Your task to perform on an android device: What is the recent news? Image 0: 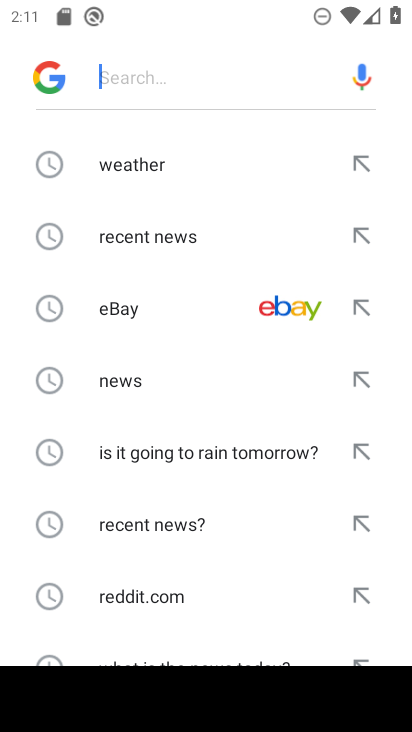
Step 0: press home button
Your task to perform on an android device: What is the recent news? Image 1: 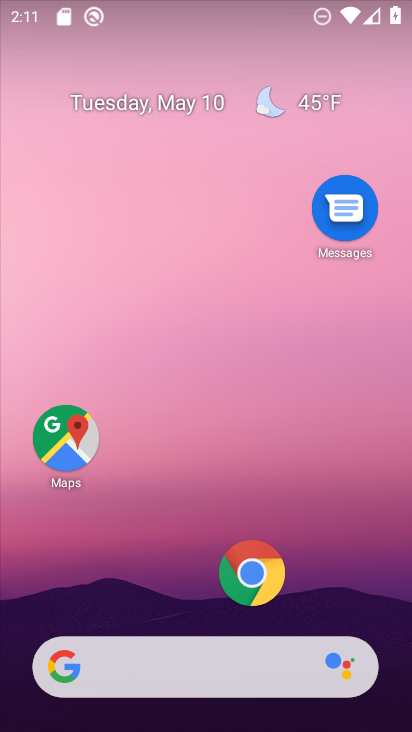
Step 1: drag from (203, 611) to (314, 91)
Your task to perform on an android device: What is the recent news? Image 2: 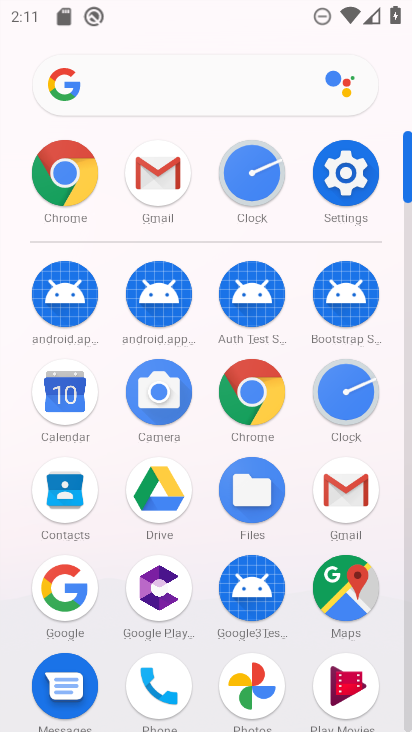
Step 2: drag from (204, 664) to (221, 260)
Your task to perform on an android device: What is the recent news? Image 3: 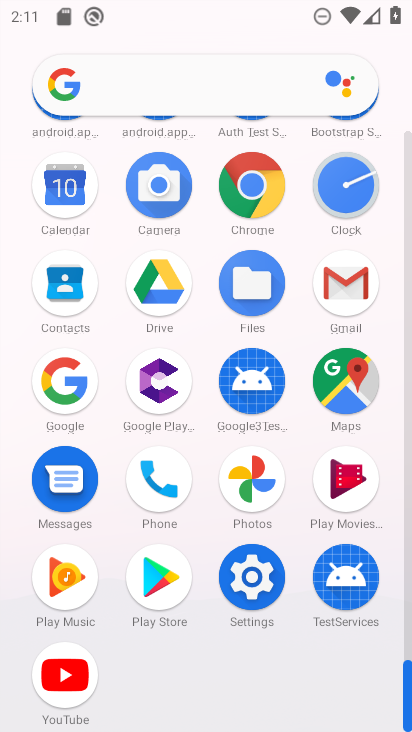
Step 3: click (249, 86)
Your task to perform on an android device: What is the recent news? Image 4: 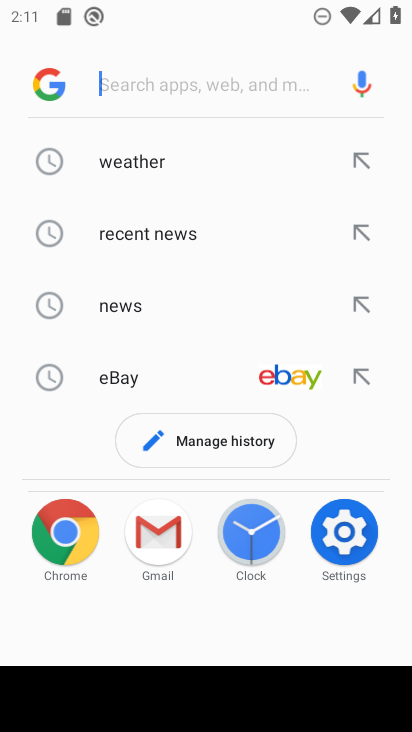
Step 4: click (140, 251)
Your task to perform on an android device: What is the recent news? Image 5: 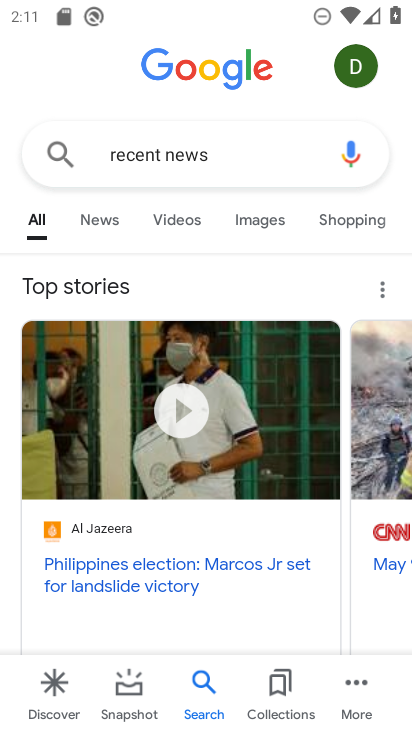
Step 5: task complete